Your task to perform on an android device: Open Chrome and go to the settings page Image 0: 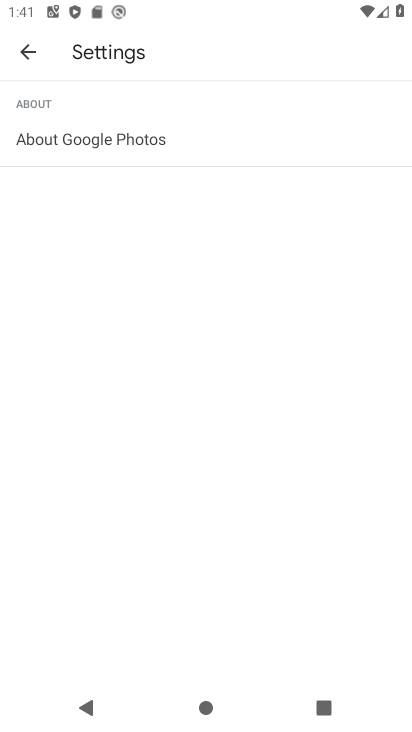
Step 0: press home button
Your task to perform on an android device: Open Chrome and go to the settings page Image 1: 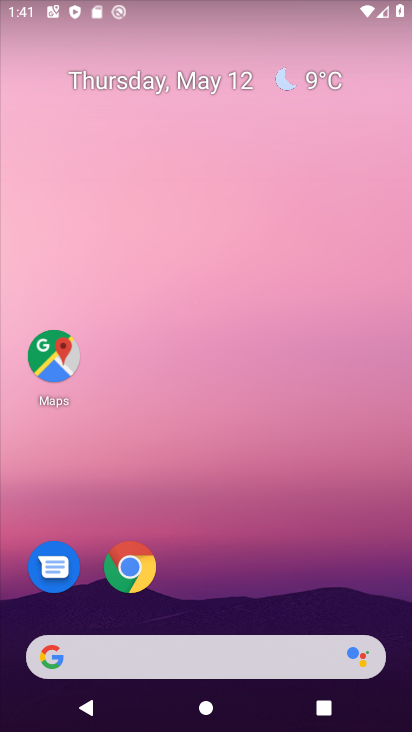
Step 1: click (134, 592)
Your task to perform on an android device: Open Chrome and go to the settings page Image 2: 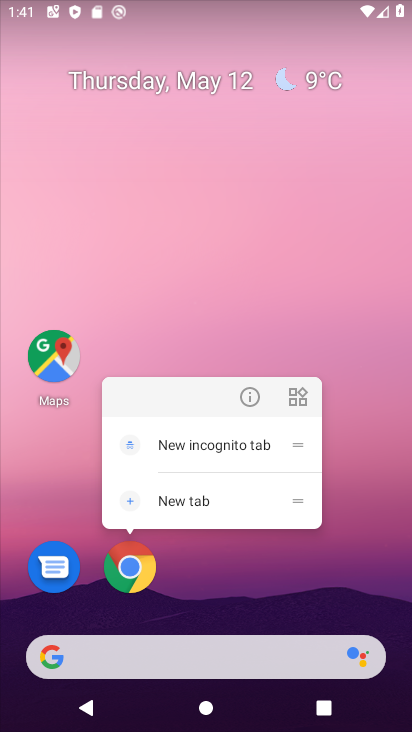
Step 2: click (122, 574)
Your task to perform on an android device: Open Chrome and go to the settings page Image 3: 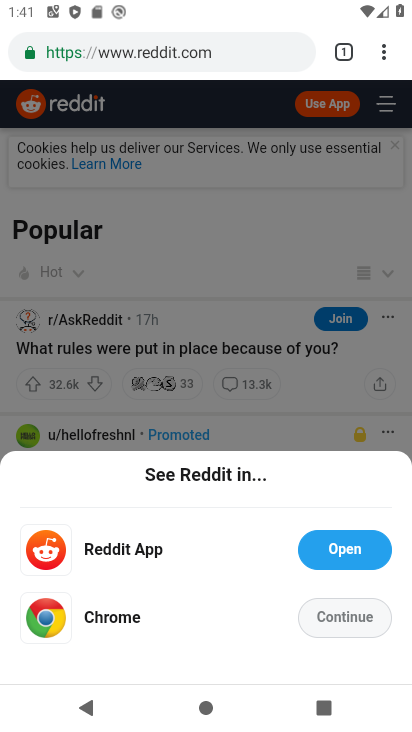
Step 3: click (358, 622)
Your task to perform on an android device: Open Chrome and go to the settings page Image 4: 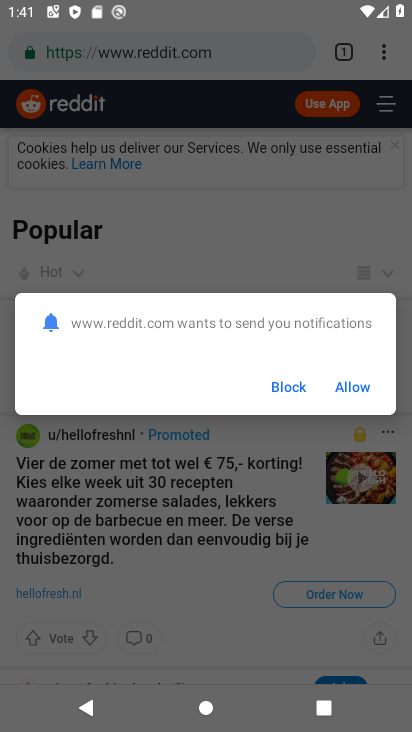
Step 4: click (283, 390)
Your task to perform on an android device: Open Chrome and go to the settings page Image 5: 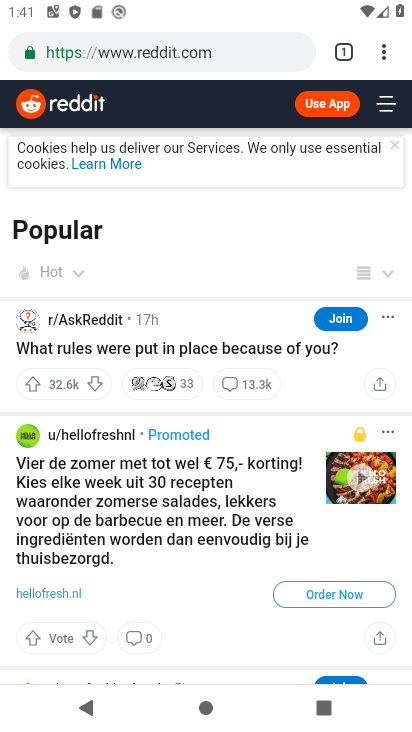
Step 5: click (382, 56)
Your task to perform on an android device: Open Chrome and go to the settings page Image 6: 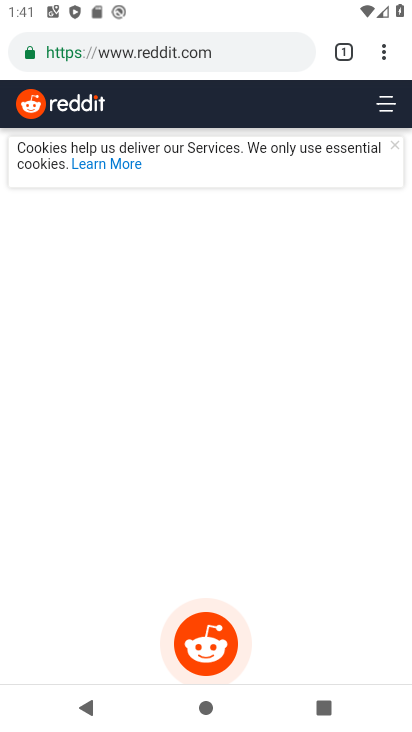
Step 6: click (384, 55)
Your task to perform on an android device: Open Chrome and go to the settings page Image 7: 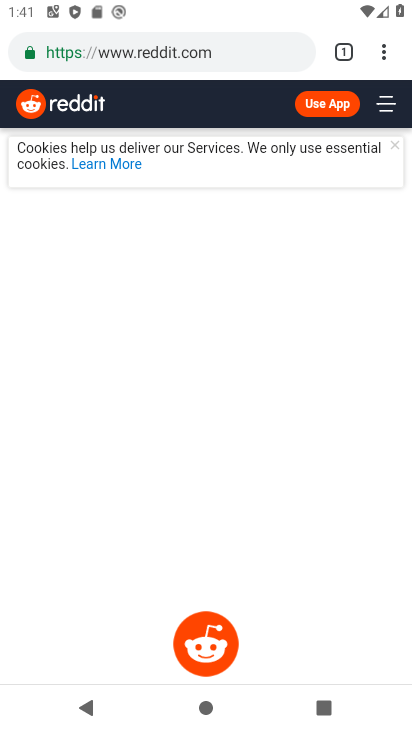
Step 7: click (388, 47)
Your task to perform on an android device: Open Chrome and go to the settings page Image 8: 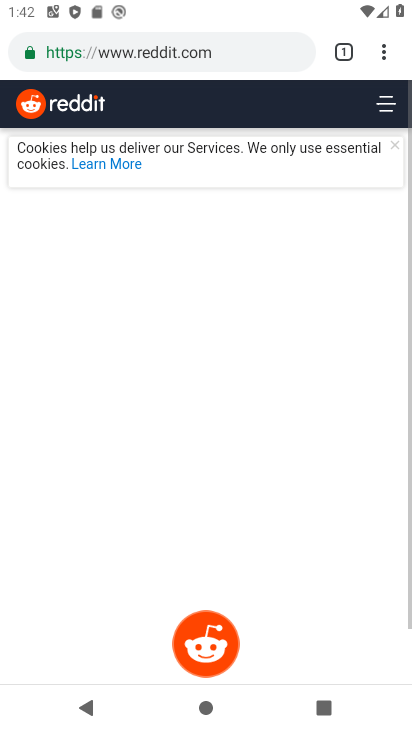
Step 8: click (380, 57)
Your task to perform on an android device: Open Chrome and go to the settings page Image 9: 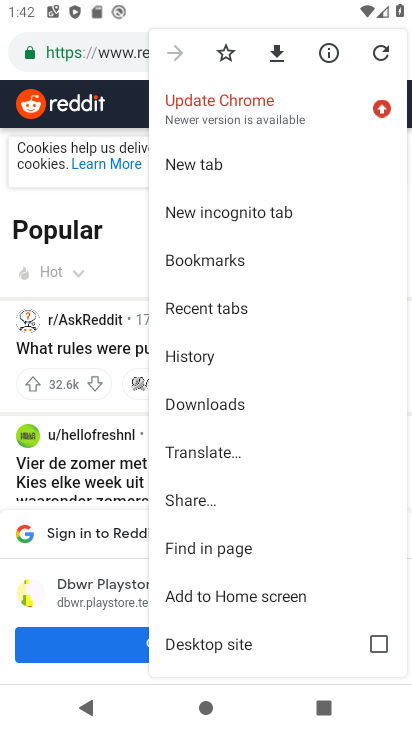
Step 9: drag from (232, 552) to (230, 231)
Your task to perform on an android device: Open Chrome and go to the settings page Image 10: 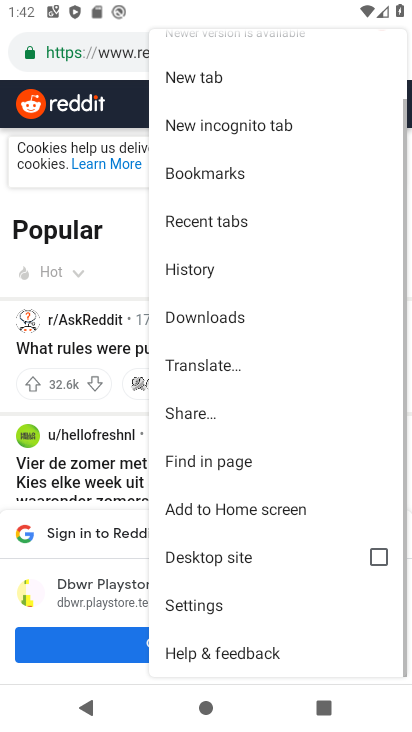
Step 10: click (194, 604)
Your task to perform on an android device: Open Chrome and go to the settings page Image 11: 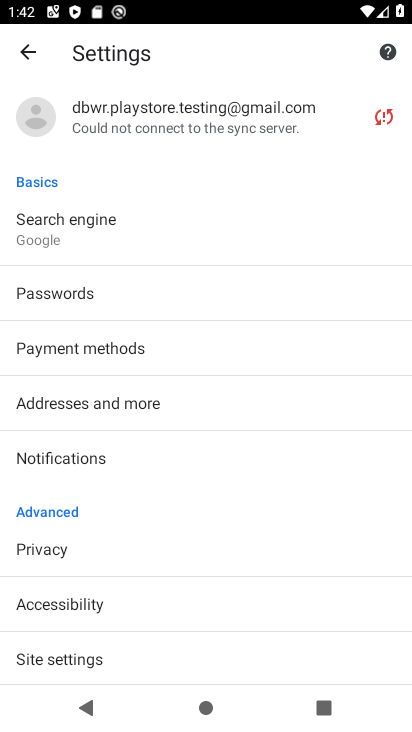
Step 11: task complete